Your task to perform on an android device: toggle data saver in the chrome app Image 0: 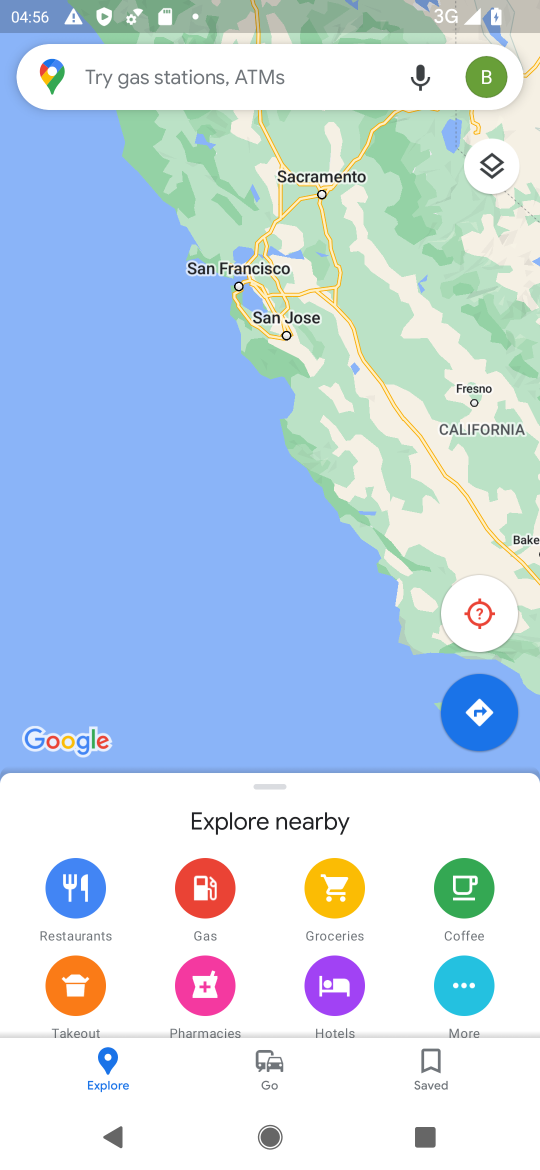
Step 0: press home button
Your task to perform on an android device: toggle data saver in the chrome app Image 1: 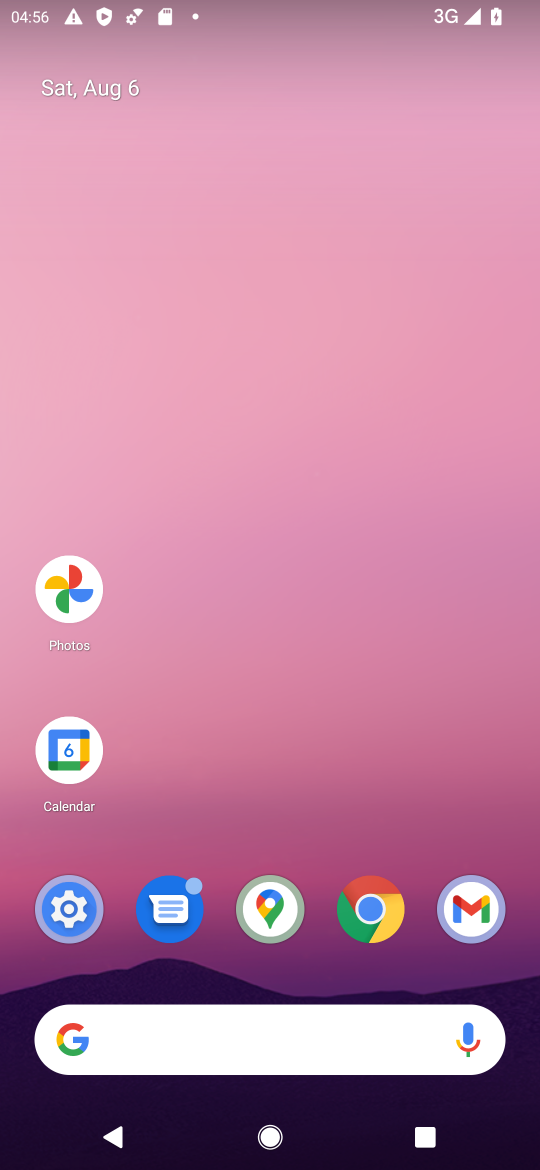
Step 1: click (361, 916)
Your task to perform on an android device: toggle data saver in the chrome app Image 2: 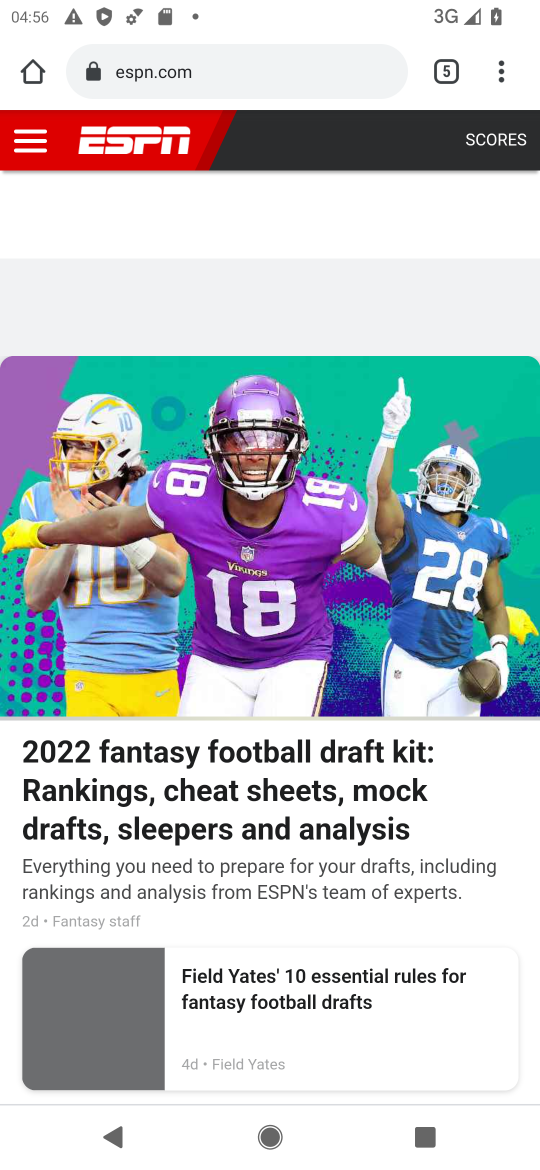
Step 2: click (496, 50)
Your task to perform on an android device: toggle data saver in the chrome app Image 3: 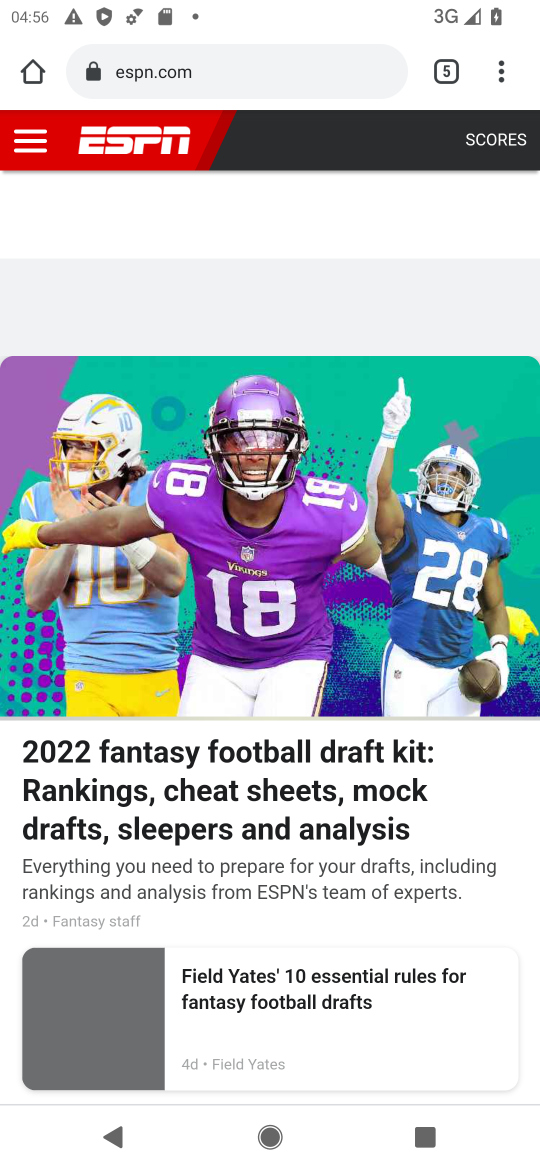
Step 3: click (498, 74)
Your task to perform on an android device: toggle data saver in the chrome app Image 4: 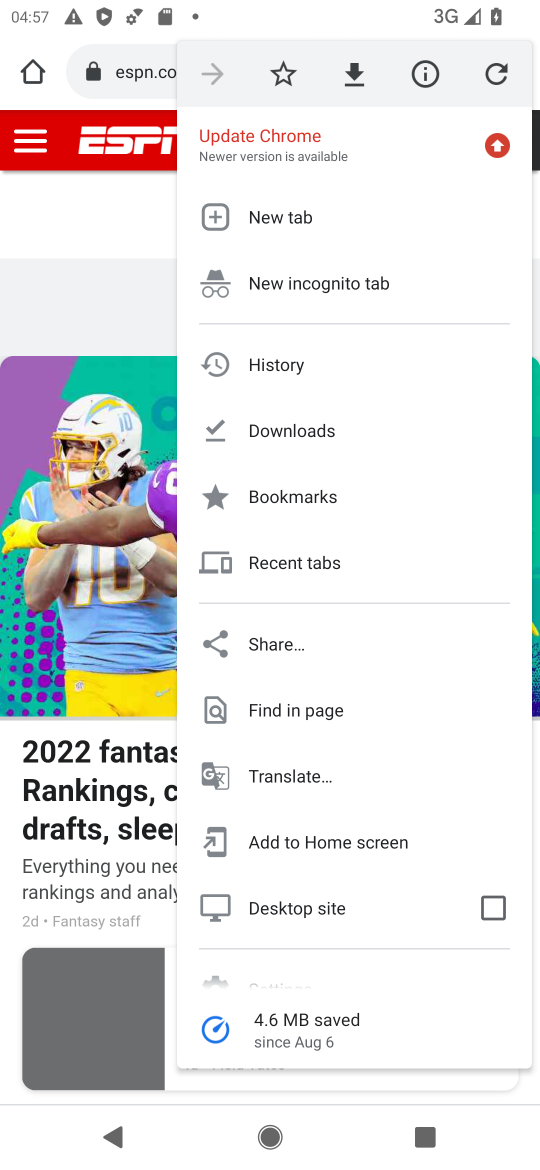
Step 4: drag from (383, 835) to (369, 310)
Your task to perform on an android device: toggle data saver in the chrome app Image 5: 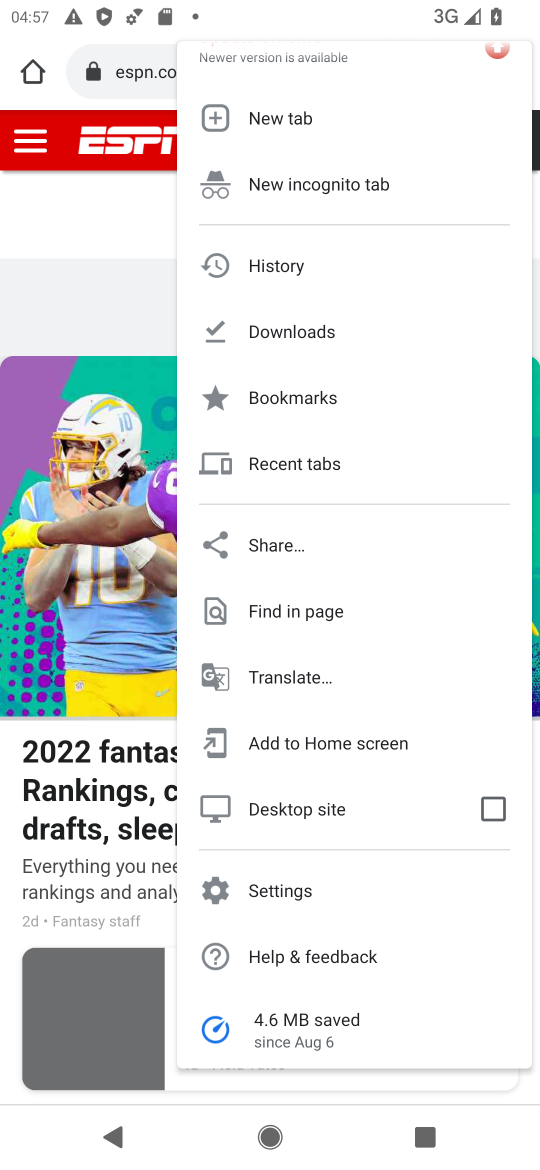
Step 5: click (286, 891)
Your task to perform on an android device: toggle data saver in the chrome app Image 6: 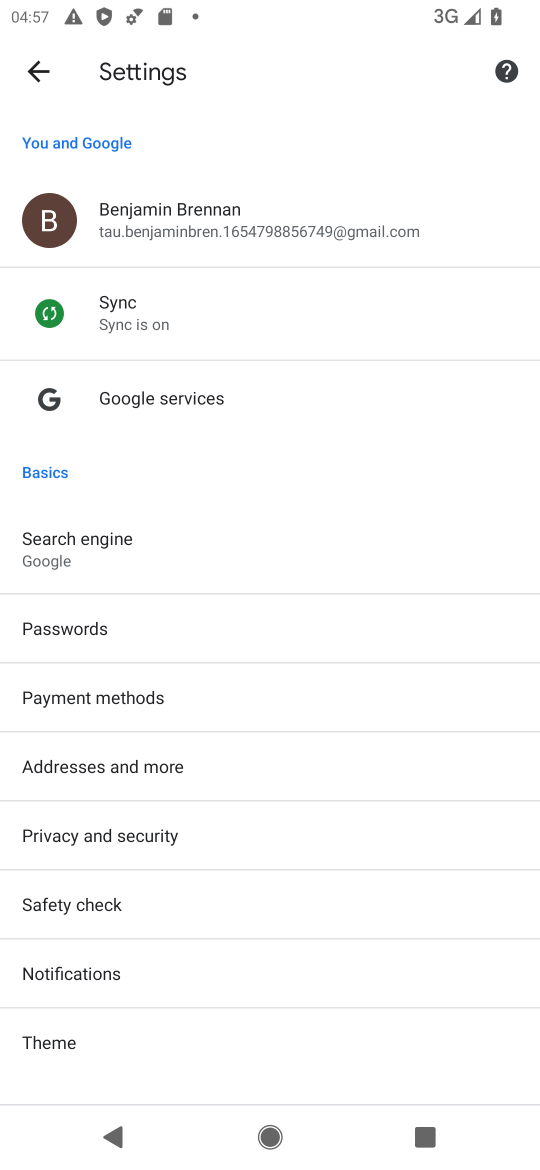
Step 6: drag from (215, 977) to (194, 109)
Your task to perform on an android device: toggle data saver in the chrome app Image 7: 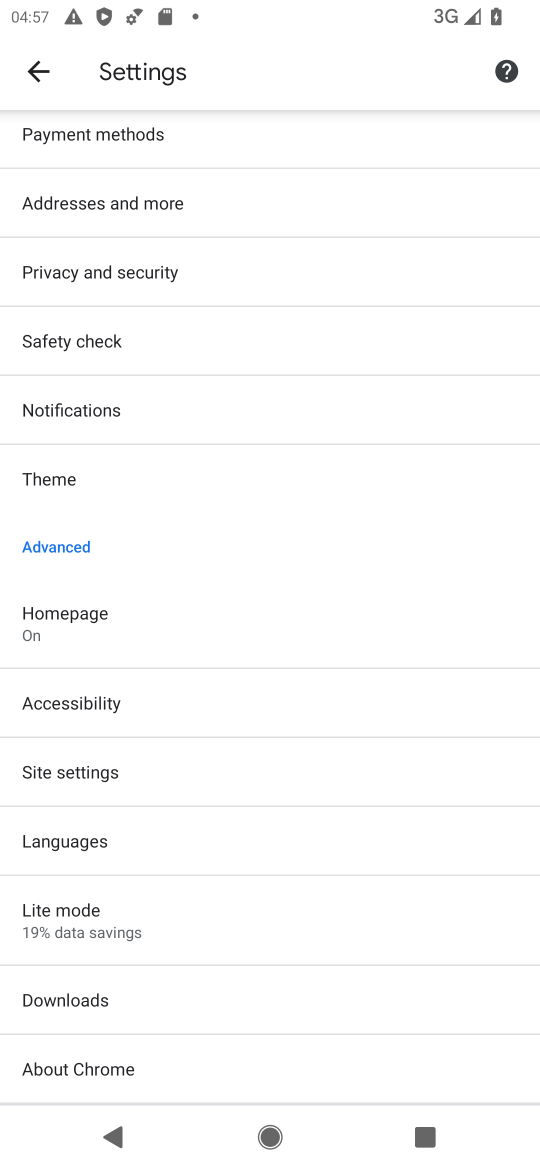
Step 7: click (61, 909)
Your task to perform on an android device: toggle data saver in the chrome app Image 8: 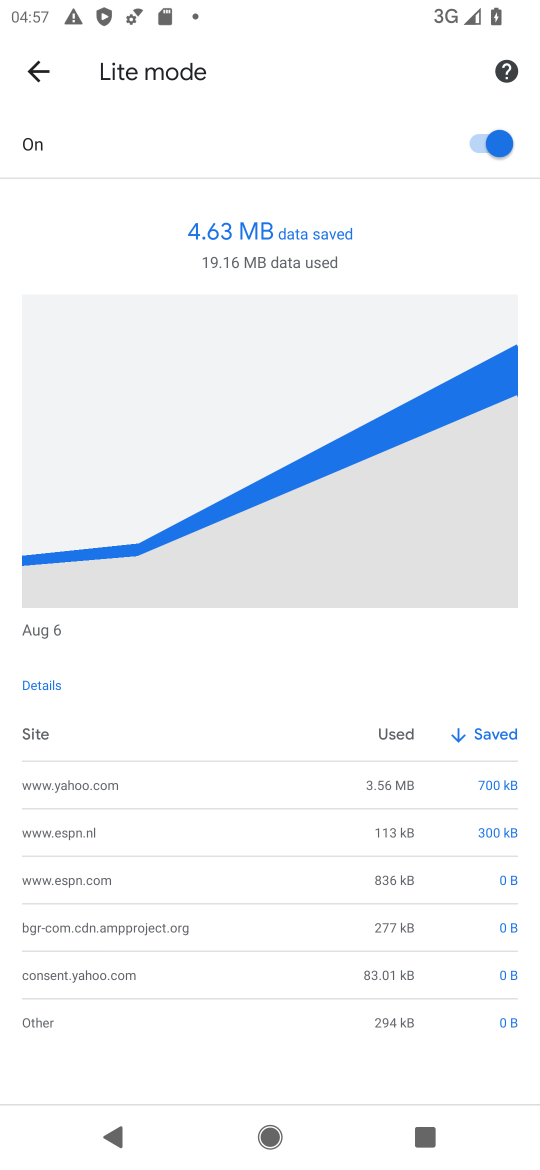
Step 8: click (497, 144)
Your task to perform on an android device: toggle data saver in the chrome app Image 9: 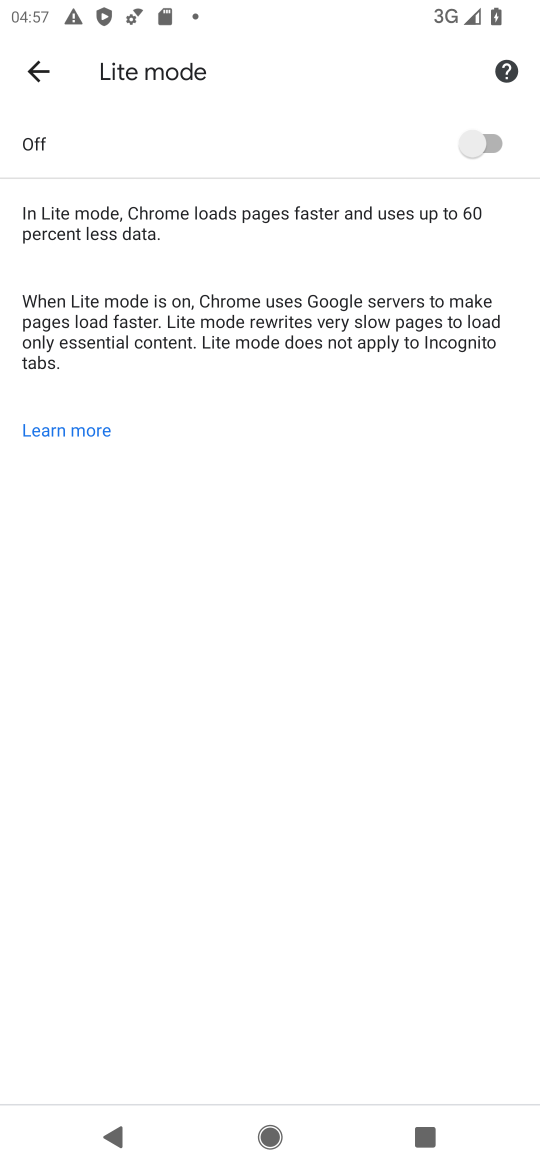
Step 9: task complete